Your task to perform on an android device: toggle improve location accuracy Image 0: 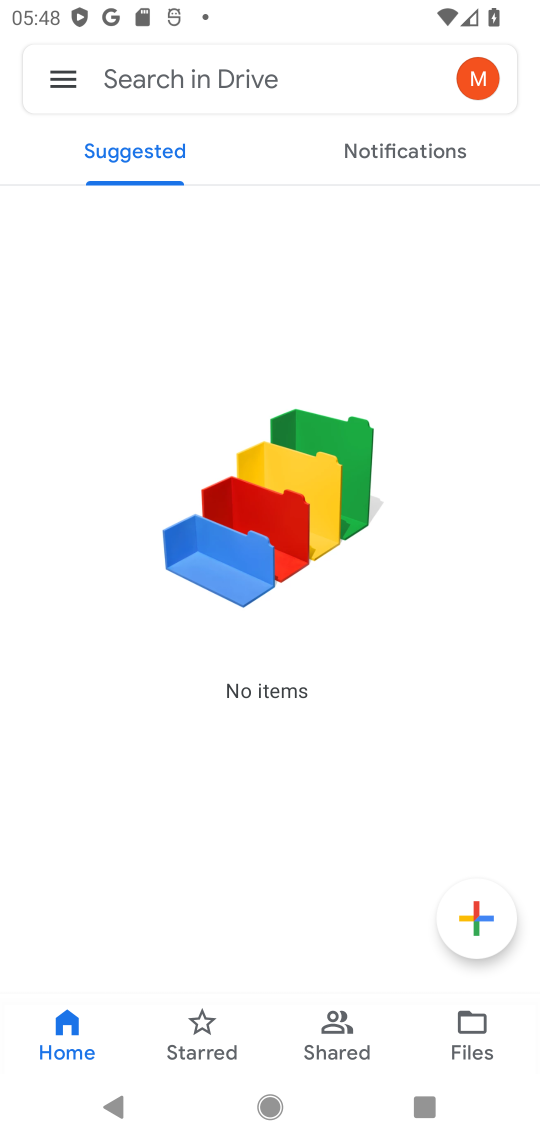
Step 0: press home button
Your task to perform on an android device: toggle improve location accuracy Image 1: 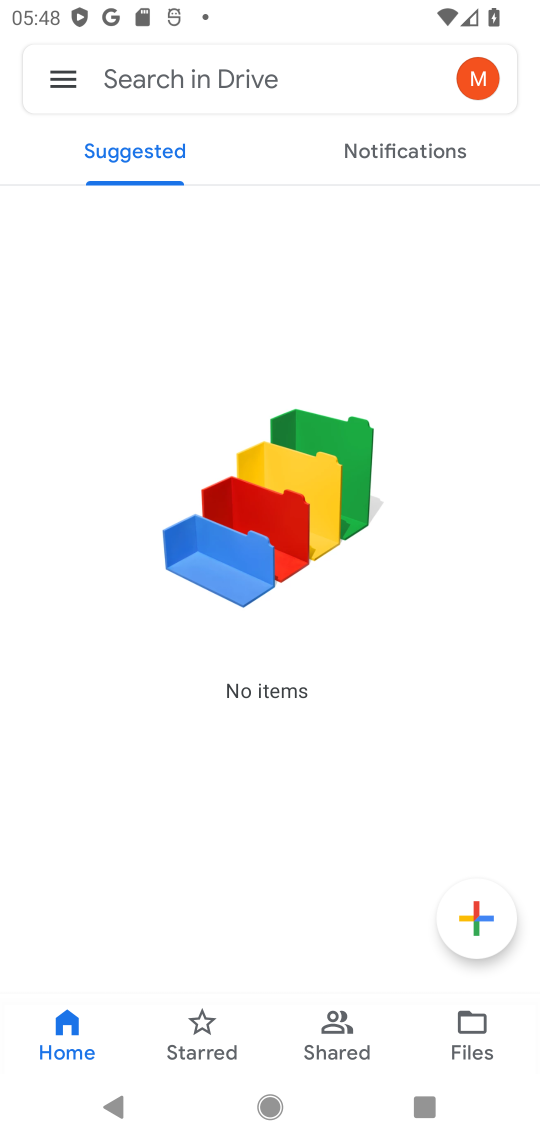
Step 1: press home button
Your task to perform on an android device: toggle improve location accuracy Image 2: 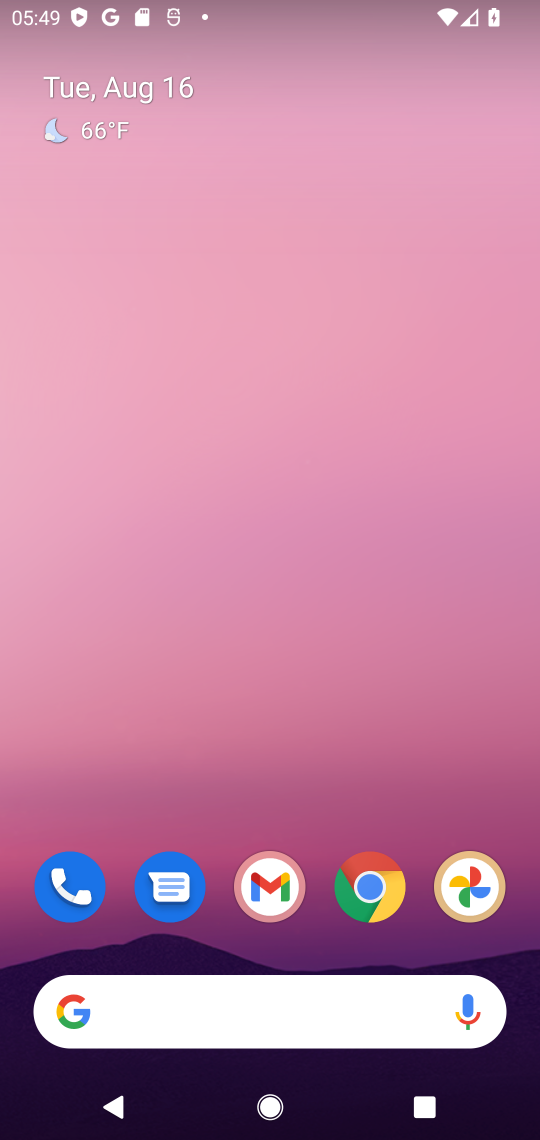
Step 2: drag from (356, 507) to (295, 5)
Your task to perform on an android device: toggle improve location accuracy Image 3: 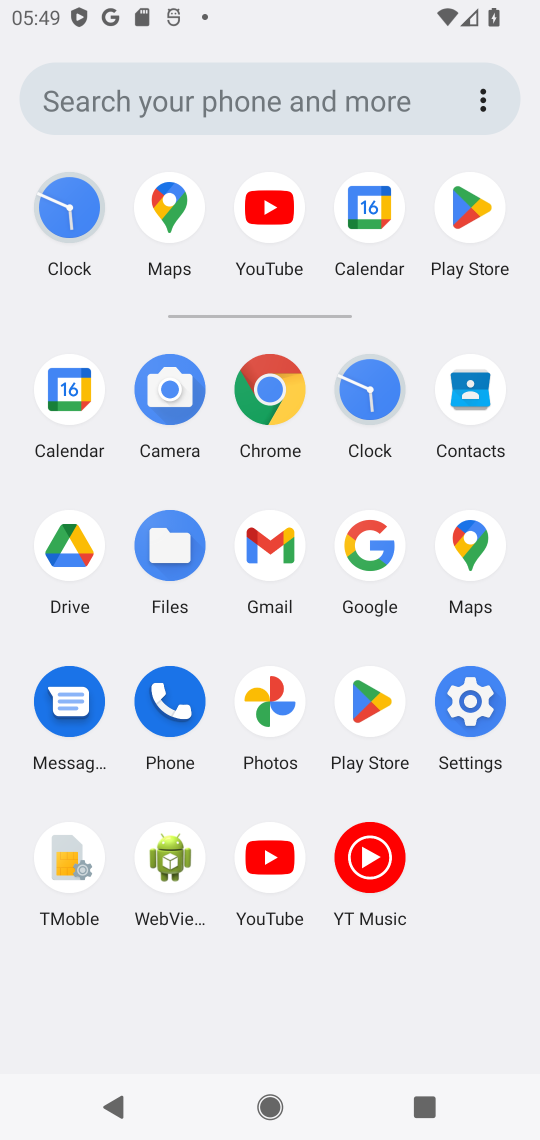
Step 3: click (476, 715)
Your task to perform on an android device: toggle improve location accuracy Image 4: 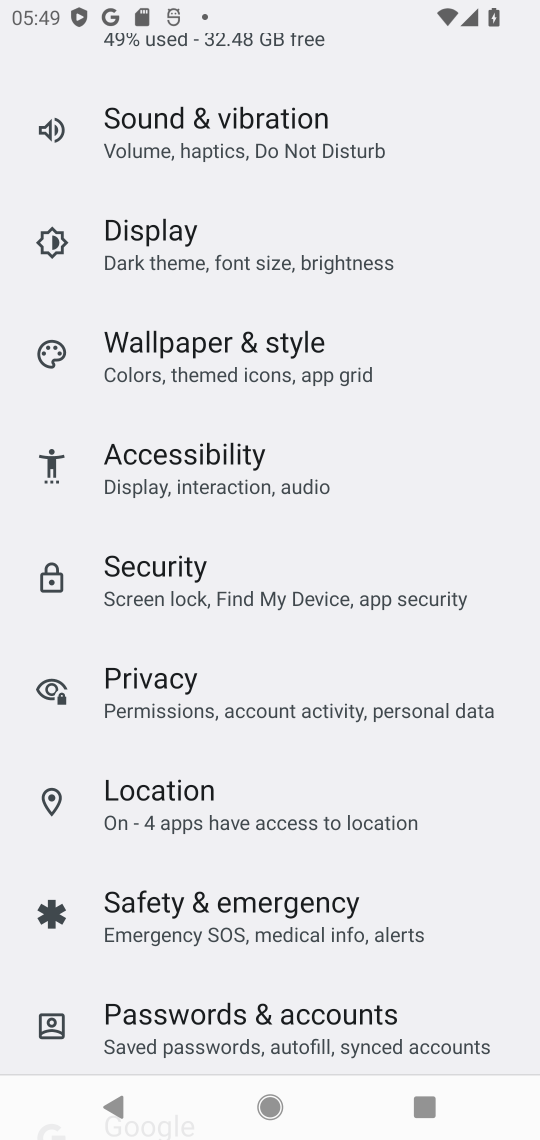
Step 4: click (205, 801)
Your task to perform on an android device: toggle improve location accuracy Image 5: 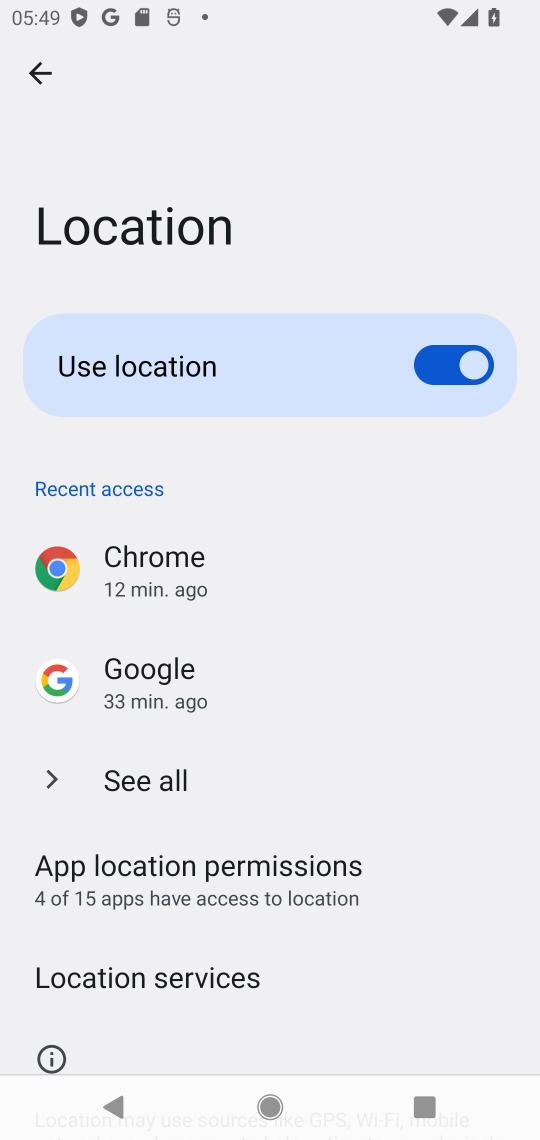
Step 5: drag from (314, 968) to (327, 420)
Your task to perform on an android device: toggle improve location accuracy Image 6: 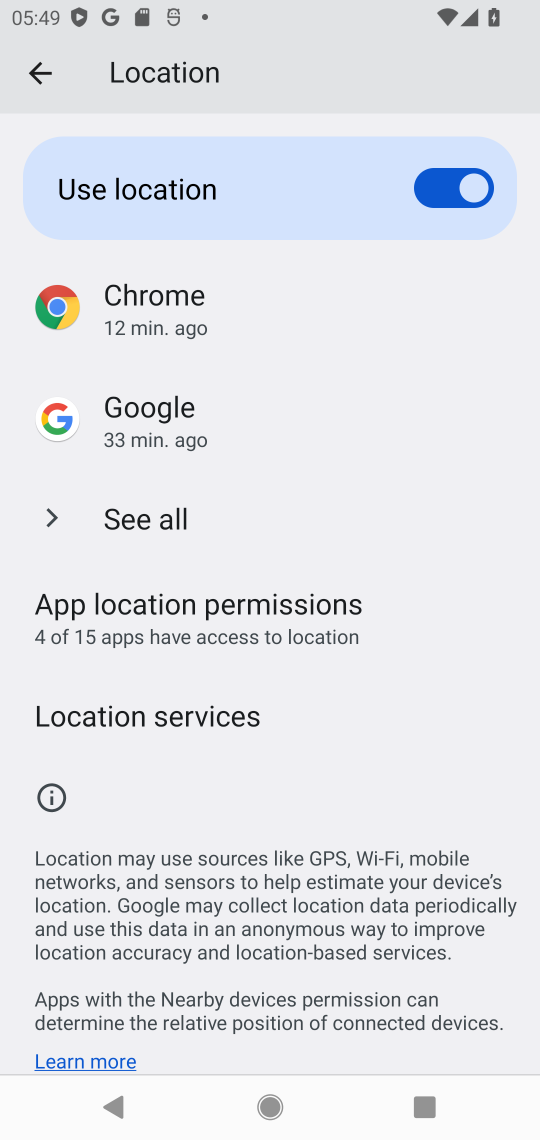
Step 6: click (211, 711)
Your task to perform on an android device: toggle improve location accuracy Image 7: 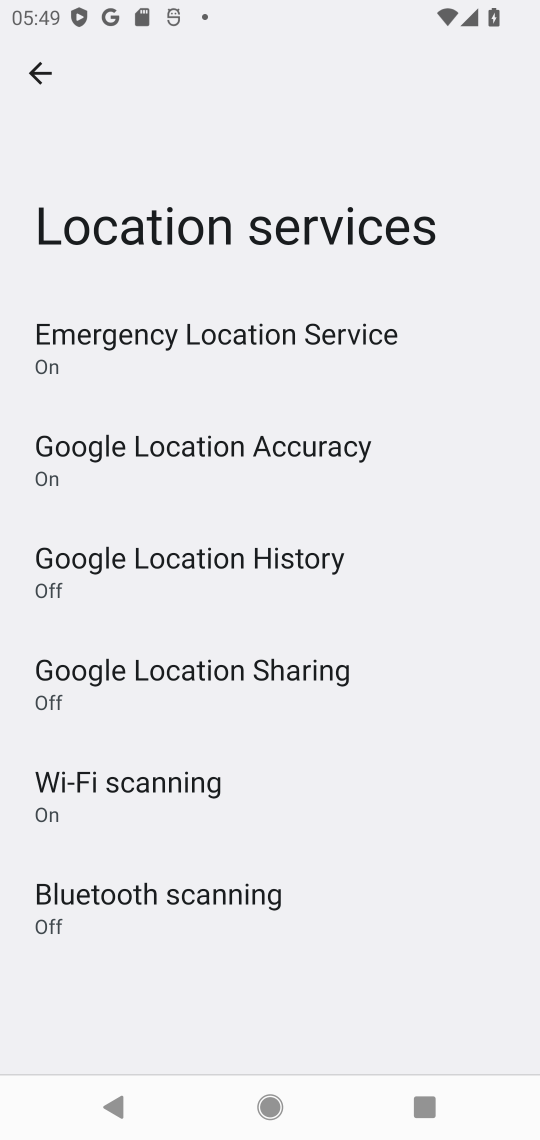
Step 7: click (304, 432)
Your task to perform on an android device: toggle improve location accuracy Image 8: 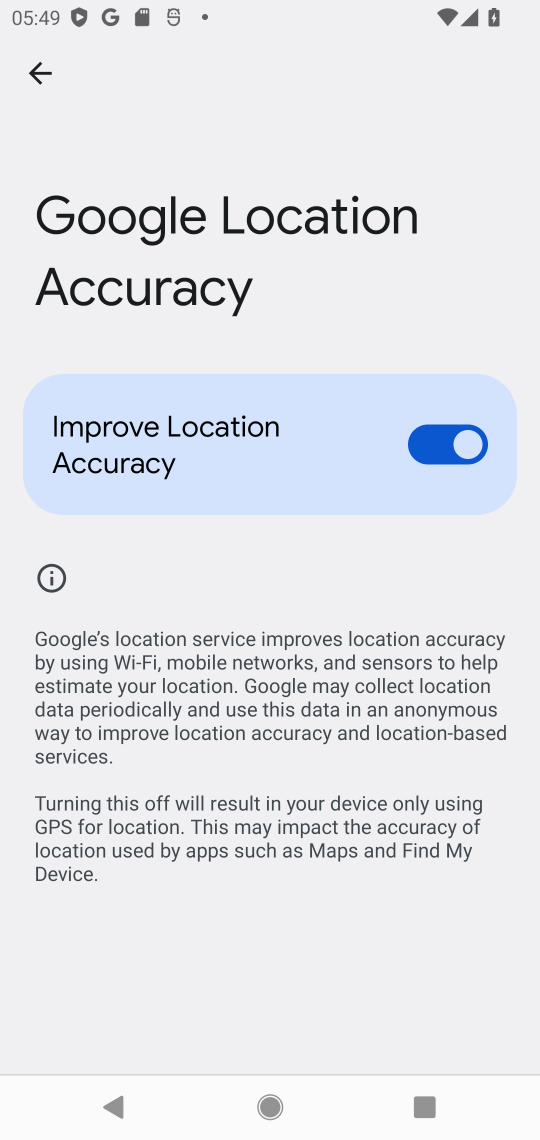
Step 8: click (478, 453)
Your task to perform on an android device: toggle improve location accuracy Image 9: 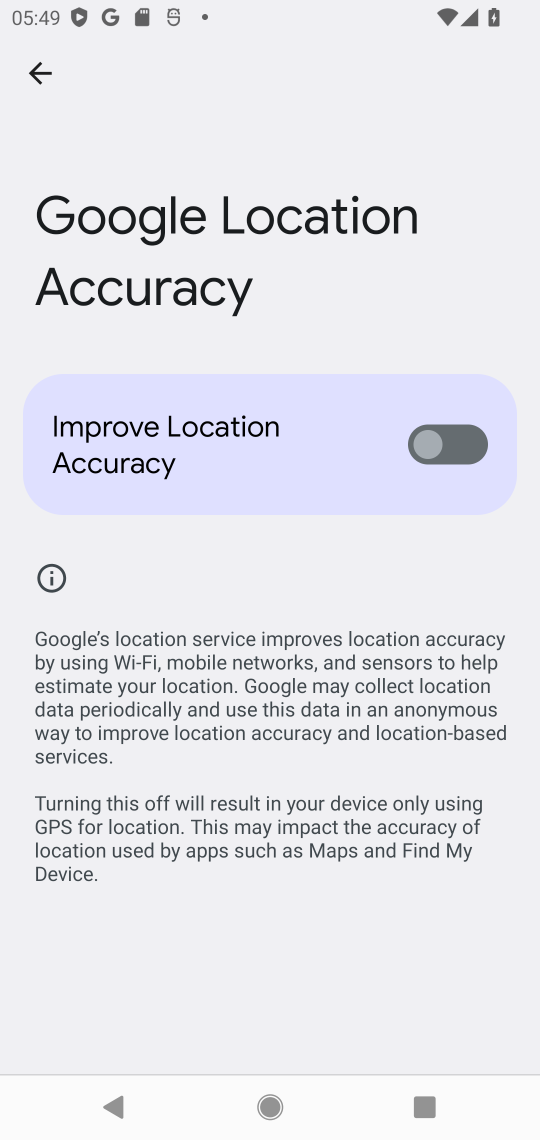
Step 9: task complete